Your task to perform on an android device: turn off notifications settings in the gmail app Image 0: 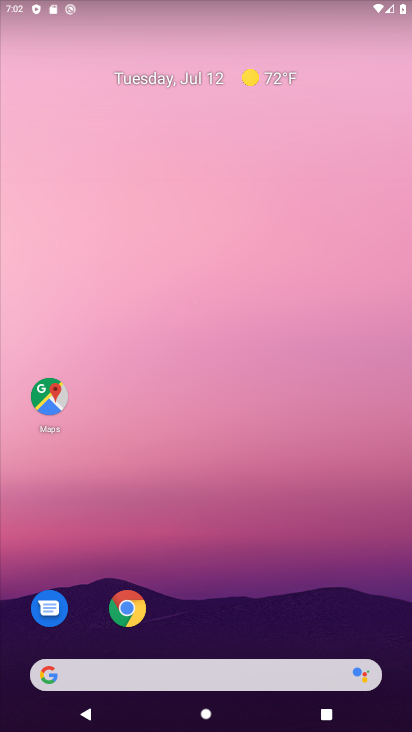
Step 0: drag from (233, 550) to (179, 101)
Your task to perform on an android device: turn off notifications settings in the gmail app Image 1: 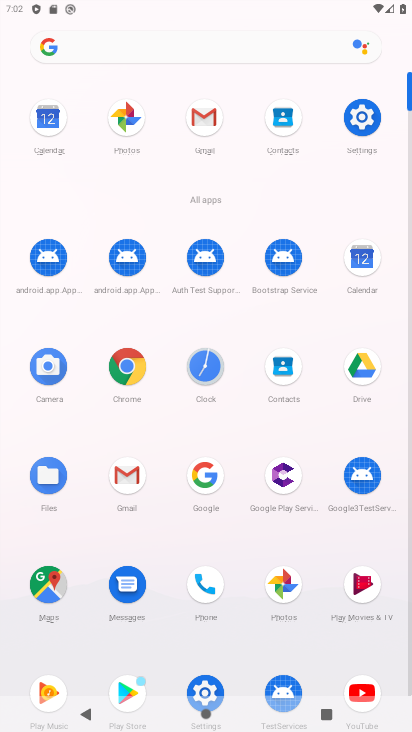
Step 1: click (128, 473)
Your task to perform on an android device: turn off notifications settings in the gmail app Image 2: 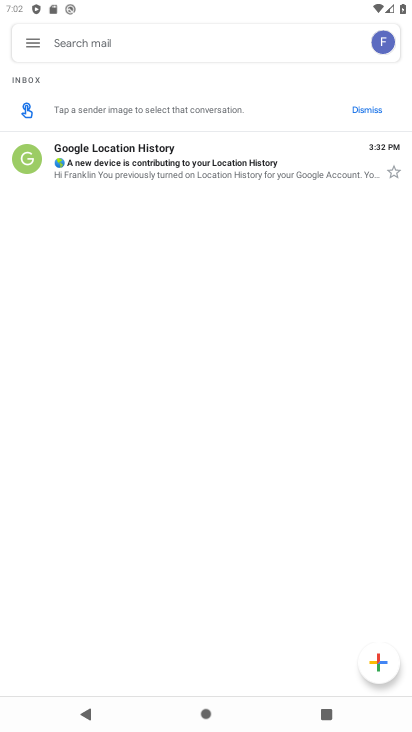
Step 2: click (26, 45)
Your task to perform on an android device: turn off notifications settings in the gmail app Image 3: 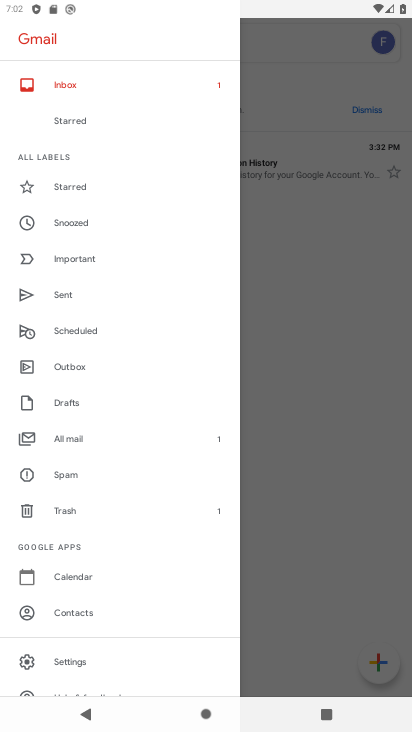
Step 3: click (60, 659)
Your task to perform on an android device: turn off notifications settings in the gmail app Image 4: 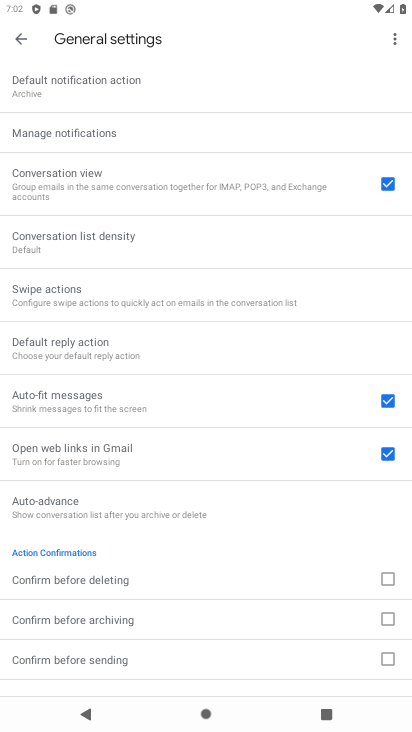
Step 4: click (69, 129)
Your task to perform on an android device: turn off notifications settings in the gmail app Image 5: 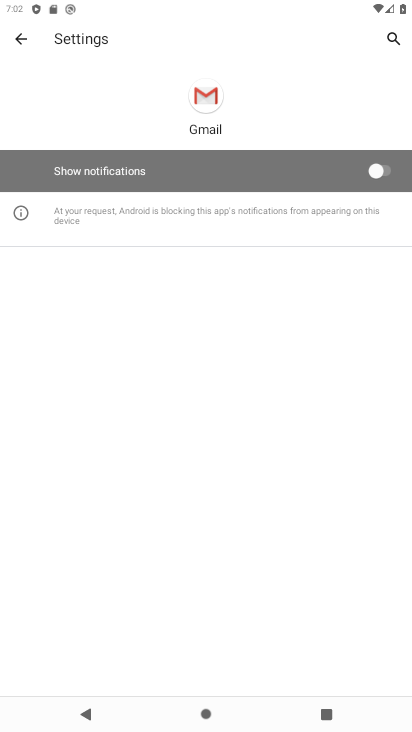
Step 5: task complete